Your task to perform on an android device: set the stopwatch Image 0: 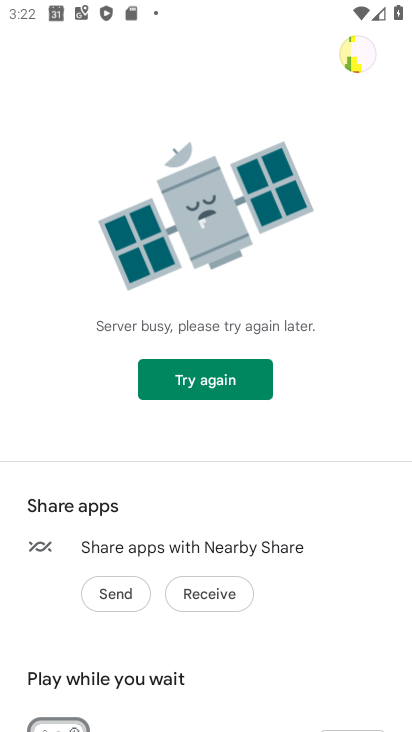
Step 0: press home button
Your task to perform on an android device: set the stopwatch Image 1: 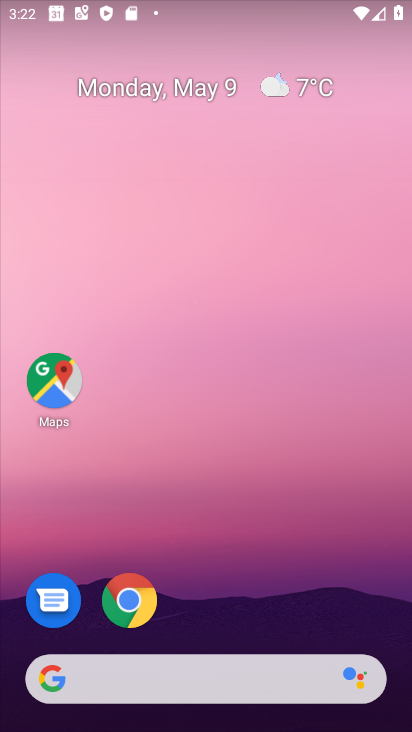
Step 1: drag from (223, 557) to (177, 99)
Your task to perform on an android device: set the stopwatch Image 2: 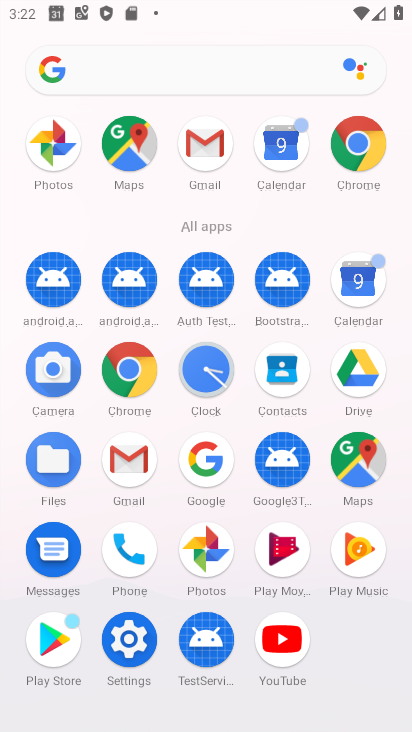
Step 2: click (217, 377)
Your task to perform on an android device: set the stopwatch Image 3: 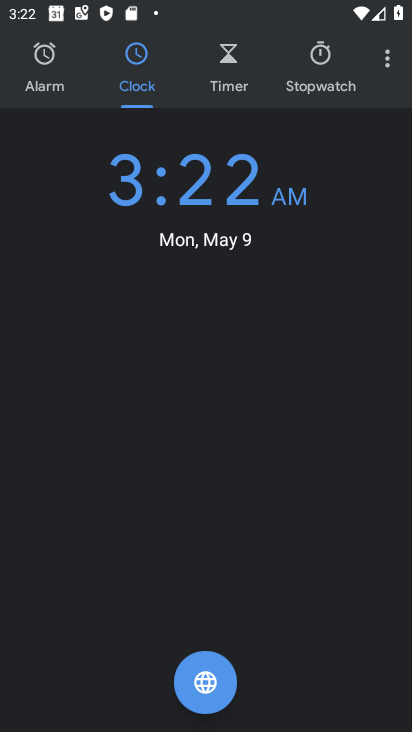
Step 3: click (318, 74)
Your task to perform on an android device: set the stopwatch Image 4: 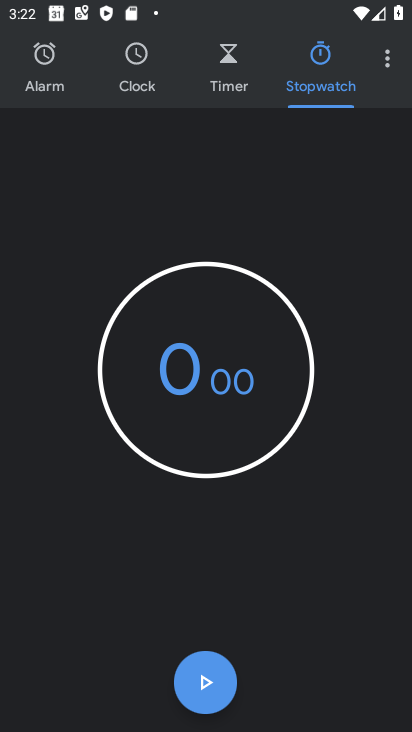
Step 4: click (217, 696)
Your task to perform on an android device: set the stopwatch Image 5: 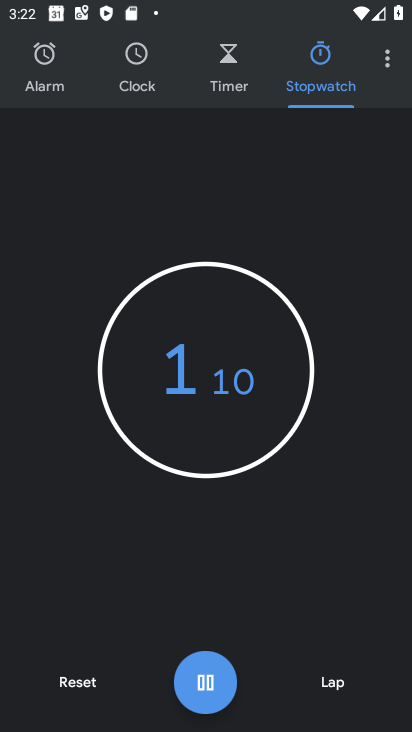
Step 5: click (217, 695)
Your task to perform on an android device: set the stopwatch Image 6: 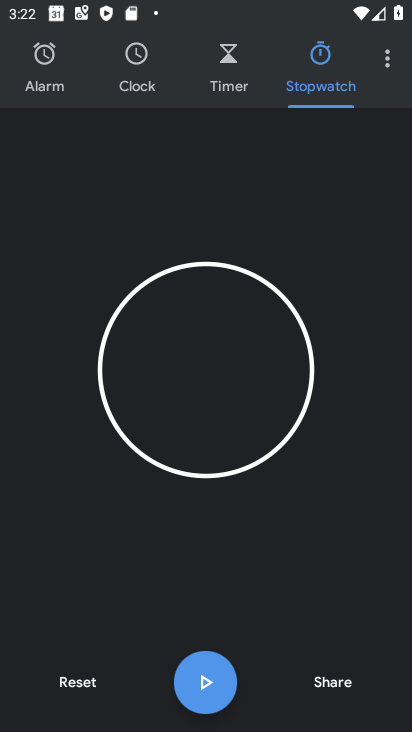
Step 6: task complete